Your task to perform on an android device: What's on my calendar today? Image 0: 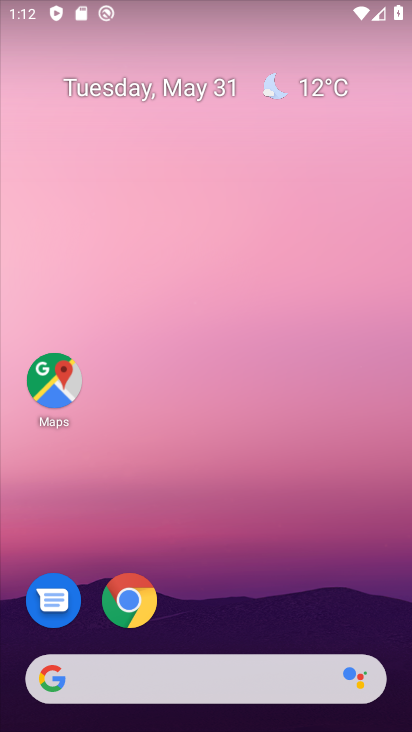
Step 0: drag from (257, 395) to (161, 12)
Your task to perform on an android device: What's on my calendar today? Image 1: 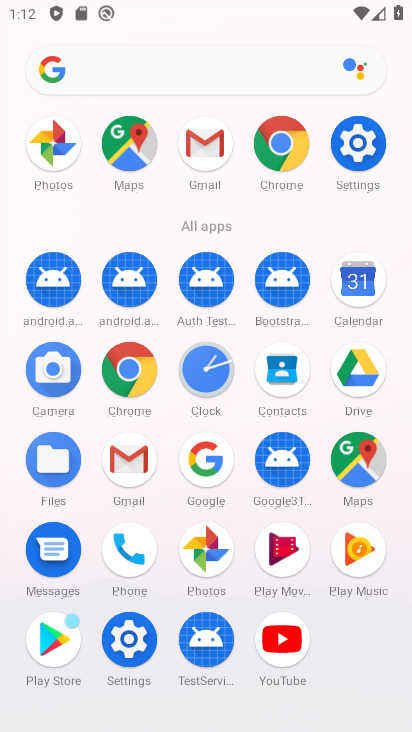
Step 1: click (369, 289)
Your task to perform on an android device: What's on my calendar today? Image 2: 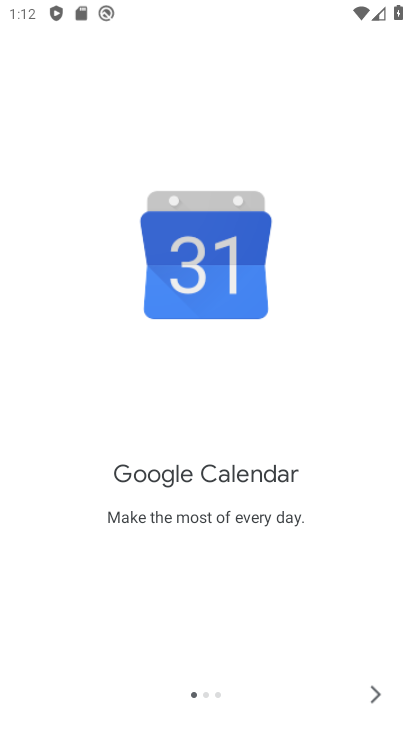
Step 2: click (376, 696)
Your task to perform on an android device: What's on my calendar today? Image 3: 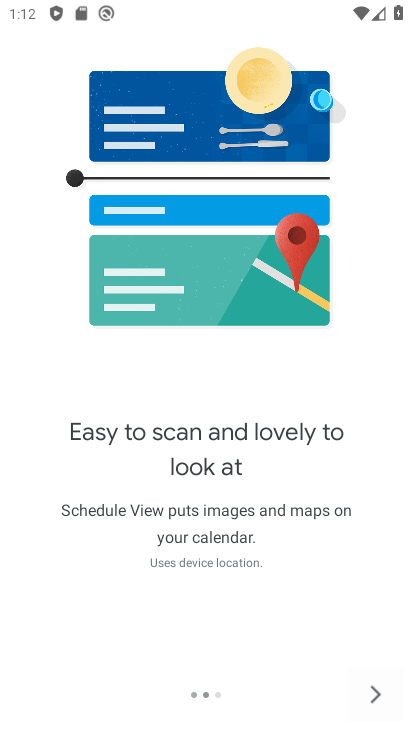
Step 3: click (376, 696)
Your task to perform on an android device: What's on my calendar today? Image 4: 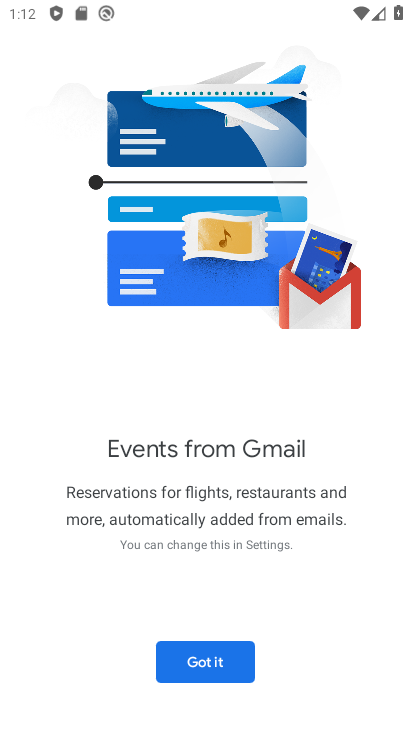
Step 4: click (376, 696)
Your task to perform on an android device: What's on my calendar today? Image 5: 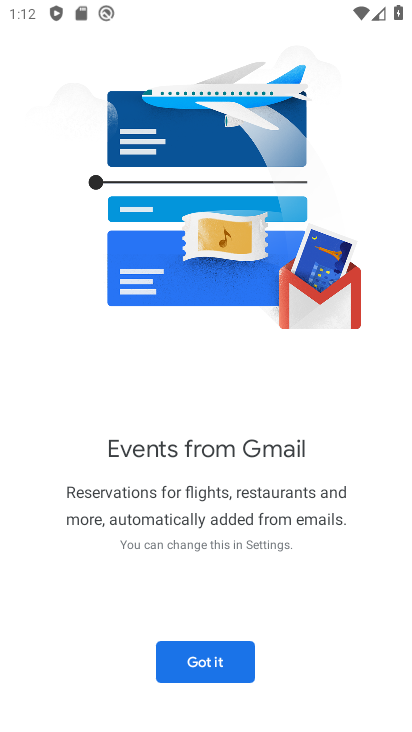
Step 5: click (235, 659)
Your task to perform on an android device: What's on my calendar today? Image 6: 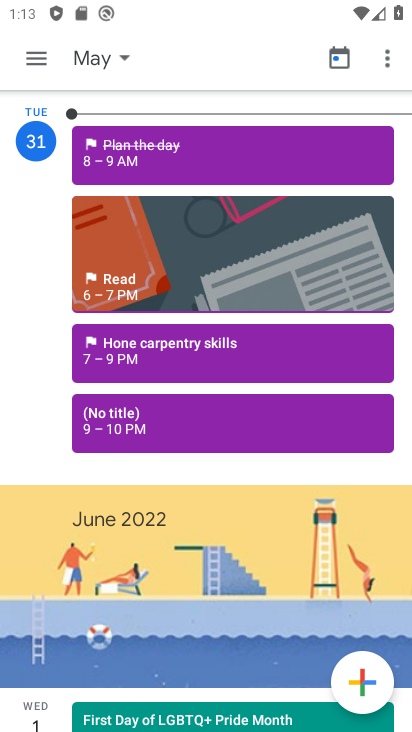
Step 6: task complete